Your task to perform on an android device: Open the phone app and click the voicemail tab. Image 0: 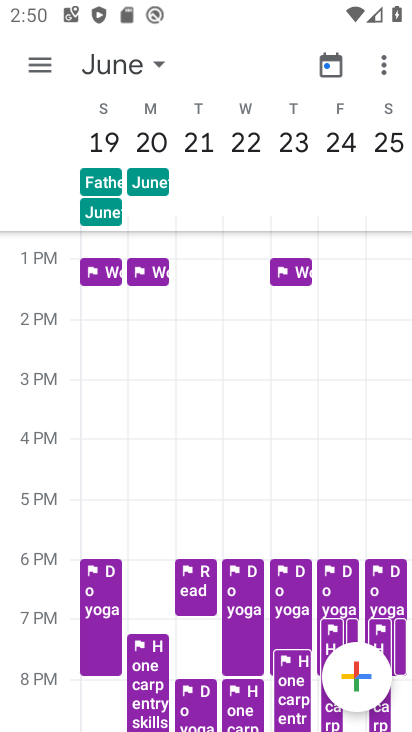
Step 0: press home button
Your task to perform on an android device: Open the phone app and click the voicemail tab. Image 1: 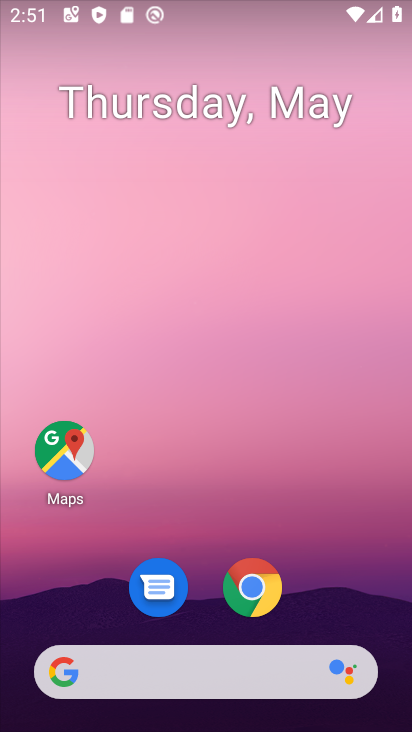
Step 1: drag from (354, 611) to (318, 44)
Your task to perform on an android device: Open the phone app and click the voicemail tab. Image 2: 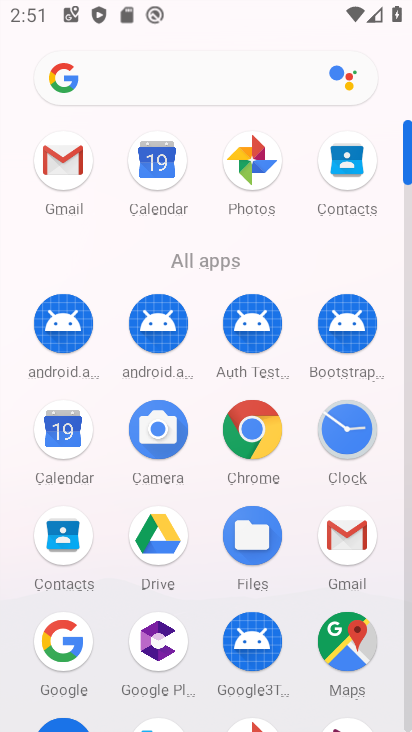
Step 2: drag from (300, 606) to (331, 220)
Your task to perform on an android device: Open the phone app and click the voicemail tab. Image 3: 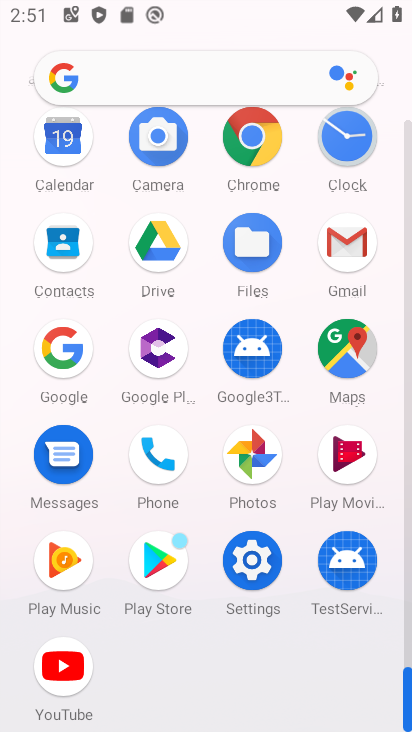
Step 3: click (168, 472)
Your task to perform on an android device: Open the phone app and click the voicemail tab. Image 4: 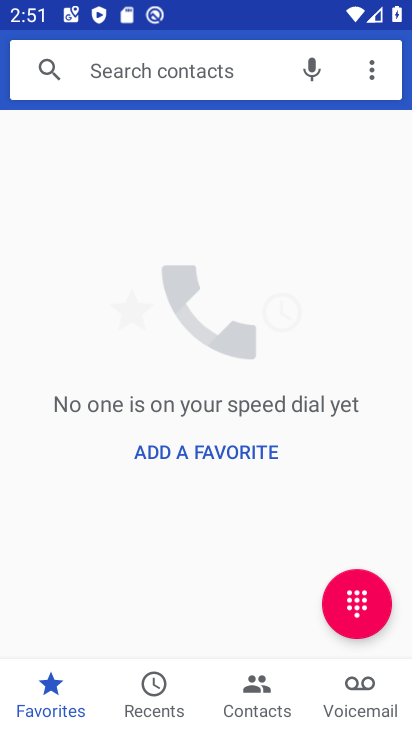
Step 4: click (345, 688)
Your task to perform on an android device: Open the phone app and click the voicemail tab. Image 5: 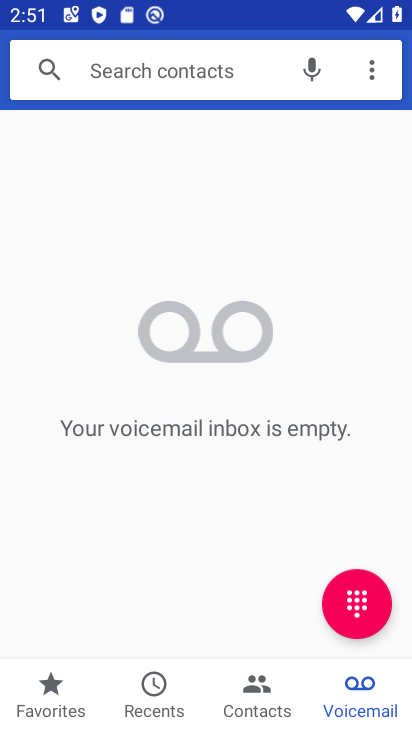
Step 5: task complete